Your task to perform on an android device: Go to eBay Image 0: 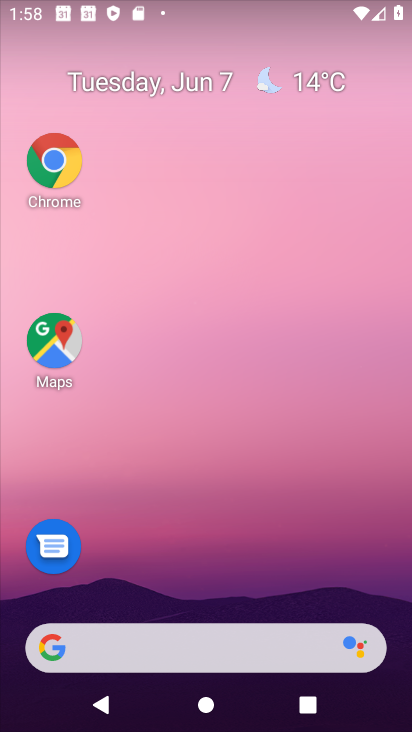
Step 0: drag from (188, 513) to (227, 118)
Your task to perform on an android device: Go to eBay Image 1: 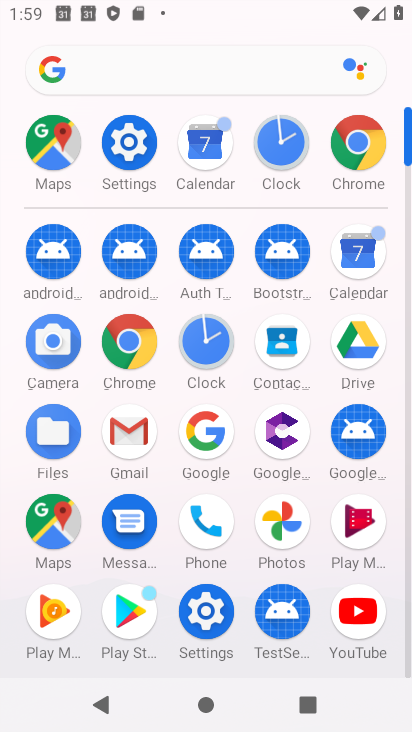
Step 1: click (202, 66)
Your task to perform on an android device: Go to eBay Image 2: 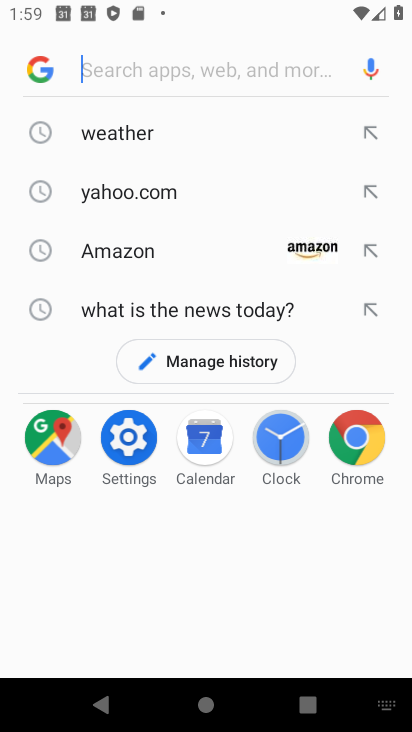
Step 2: type "eBay"
Your task to perform on an android device: Go to eBay Image 3: 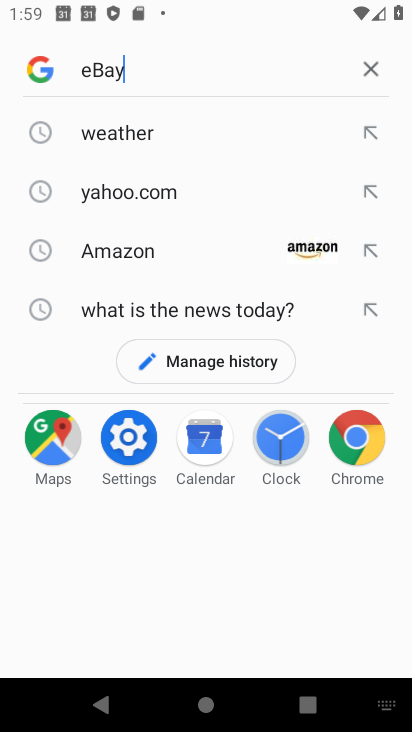
Step 3: type ""
Your task to perform on an android device: Go to eBay Image 4: 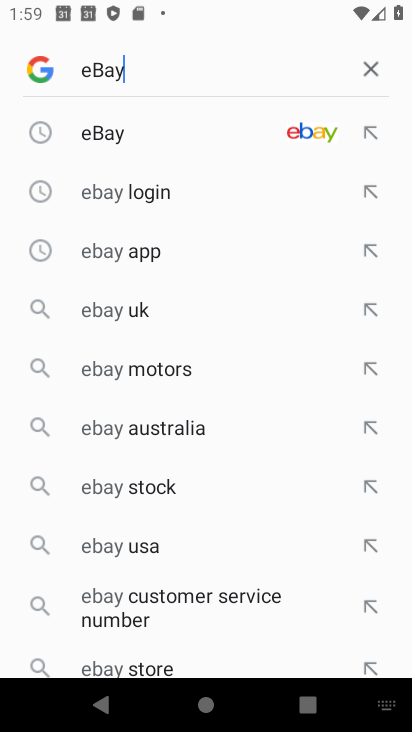
Step 4: click (215, 153)
Your task to perform on an android device: Go to eBay Image 5: 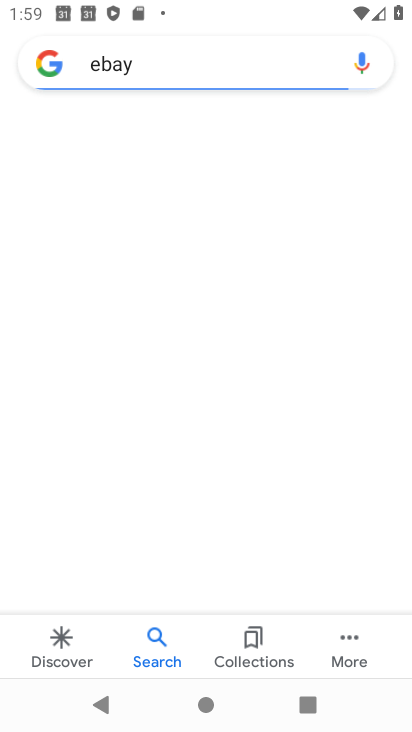
Step 5: task complete